Your task to perform on an android device: create a new album in the google photos Image 0: 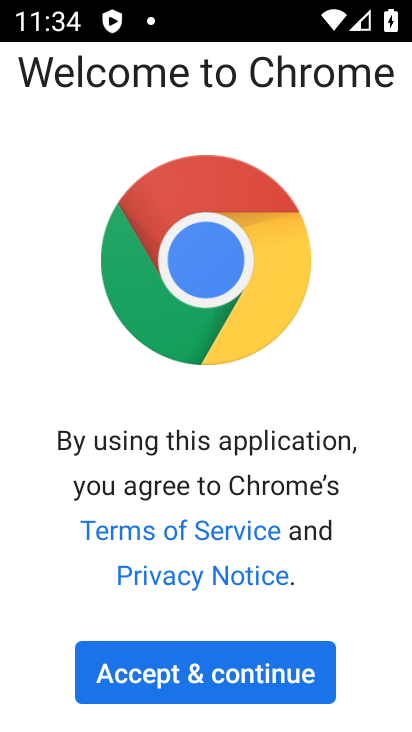
Step 0: press back button
Your task to perform on an android device: create a new album in the google photos Image 1: 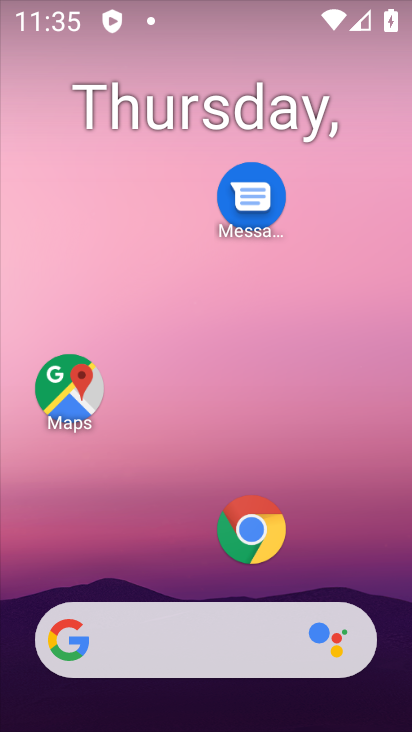
Step 1: drag from (72, 599) to (172, 10)
Your task to perform on an android device: create a new album in the google photos Image 2: 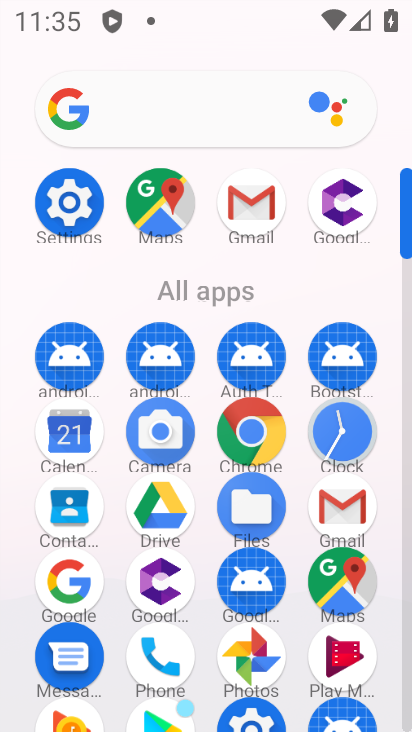
Step 2: click (231, 636)
Your task to perform on an android device: create a new album in the google photos Image 3: 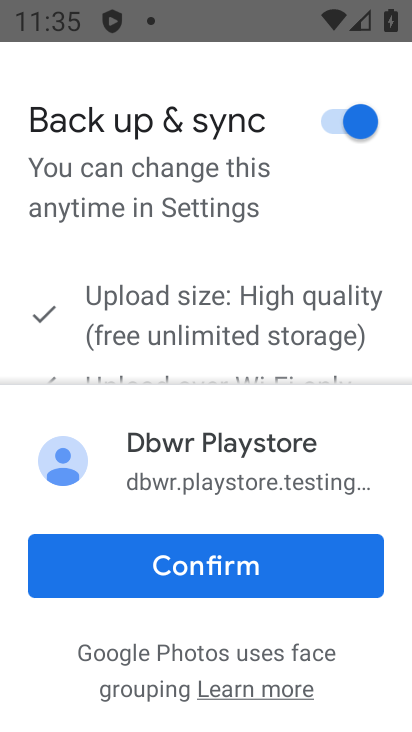
Step 3: click (234, 579)
Your task to perform on an android device: create a new album in the google photos Image 4: 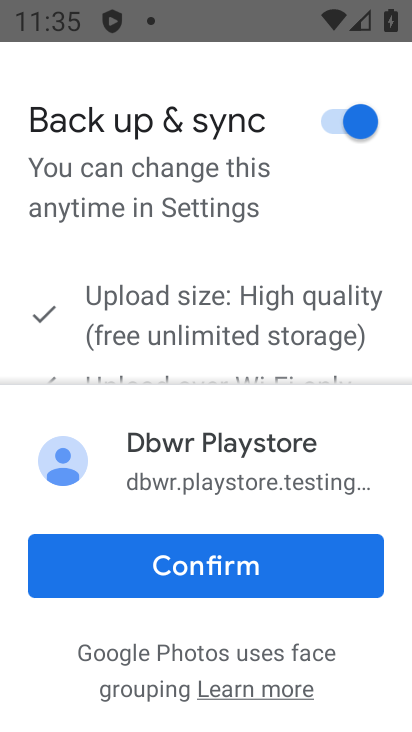
Step 4: task complete